Your task to perform on an android device: Open settings Image 0: 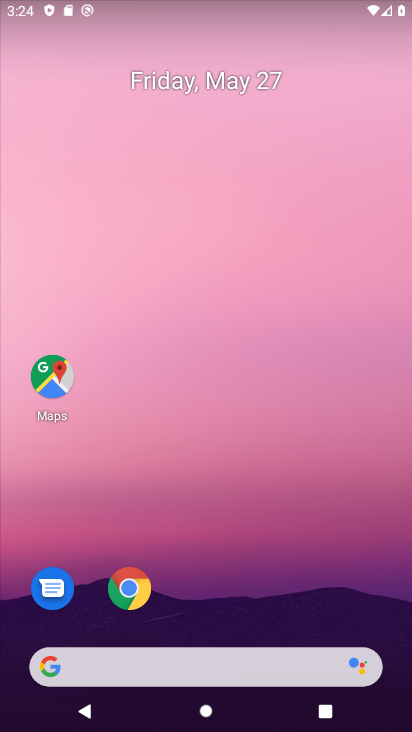
Step 0: drag from (213, 630) to (410, 160)
Your task to perform on an android device: Open settings Image 1: 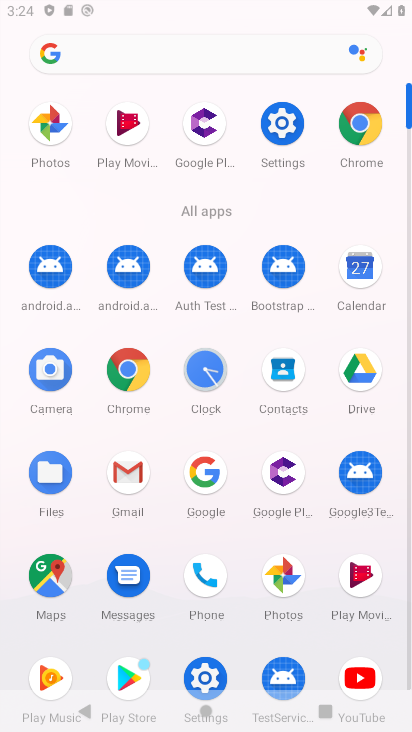
Step 1: click (274, 124)
Your task to perform on an android device: Open settings Image 2: 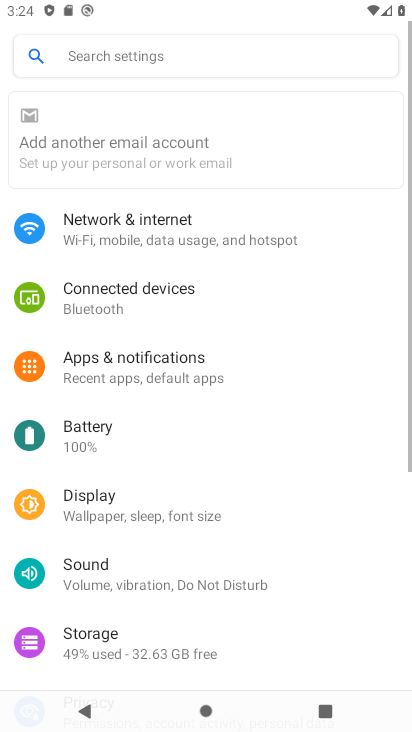
Step 2: task complete